Your task to perform on an android device: snooze an email in the gmail app Image 0: 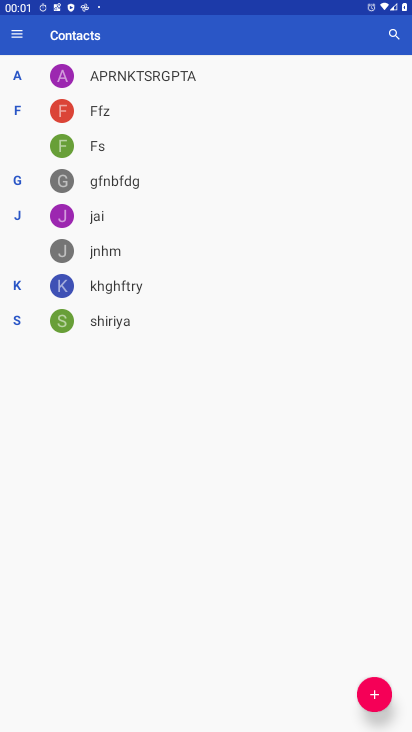
Step 0: press home button
Your task to perform on an android device: snooze an email in the gmail app Image 1: 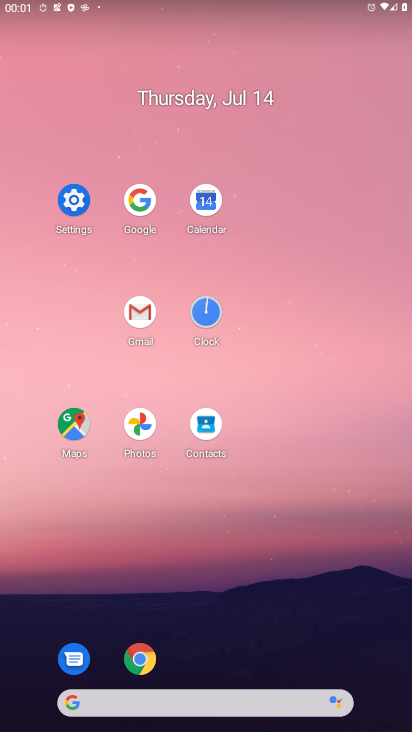
Step 1: click (144, 318)
Your task to perform on an android device: snooze an email in the gmail app Image 2: 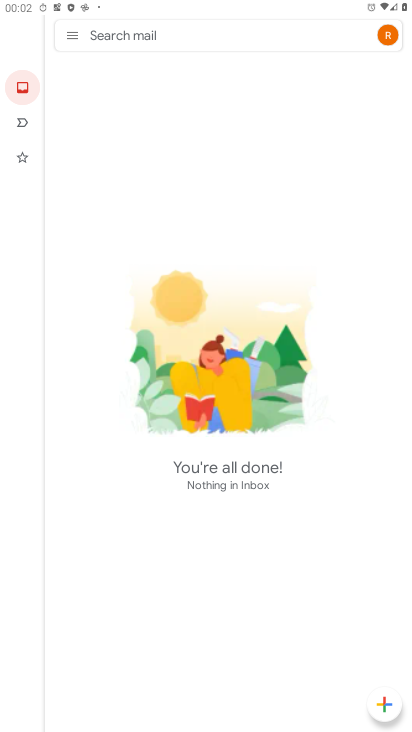
Step 2: task complete